Your task to perform on an android device: turn on sleep mode Image 0: 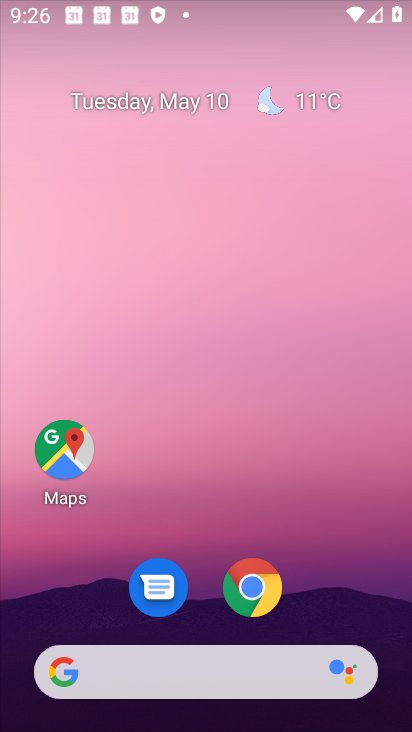
Step 0: drag from (354, 574) to (311, 148)
Your task to perform on an android device: turn on sleep mode Image 1: 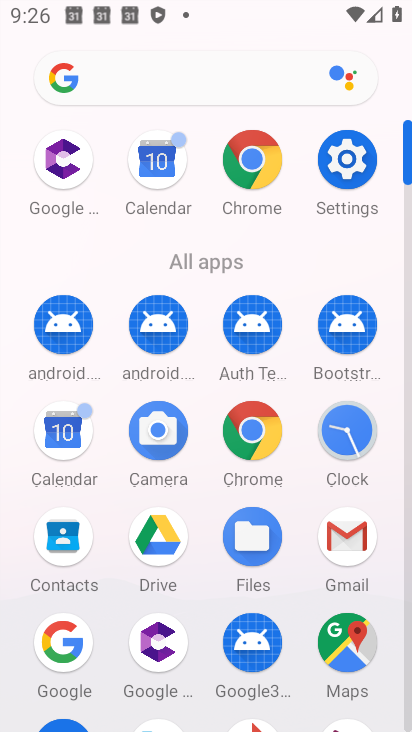
Step 1: click (328, 162)
Your task to perform on an android device: turn on sleep mode Image 2: 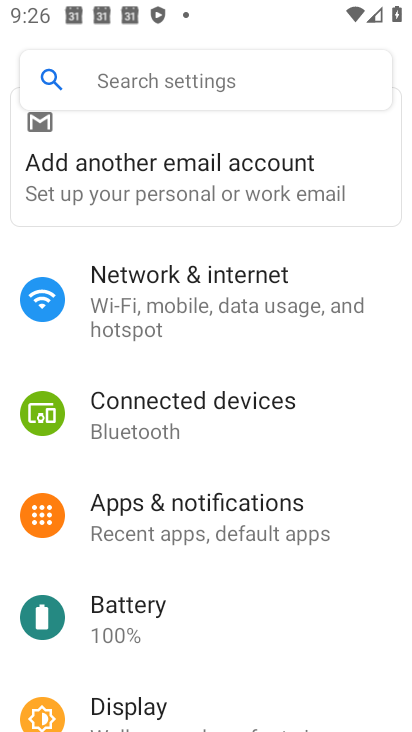
Step 2: click (199, 86)
Your task to perform on an android device: turn on sleep mode Image 3: 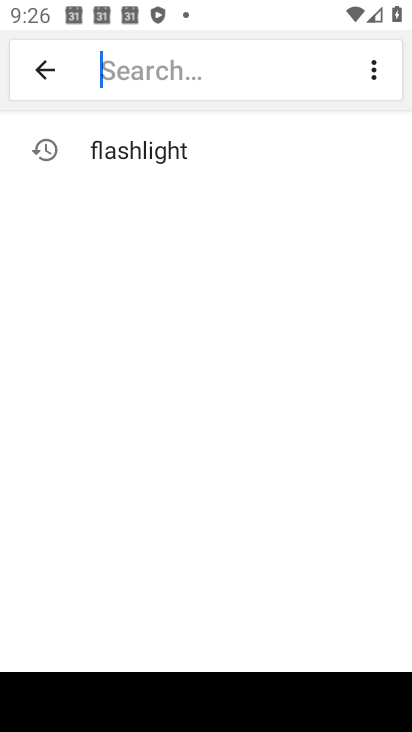
Step 3: type "sleep mode"
Your task to perform on an android device: turn on sleep mode Image 4: 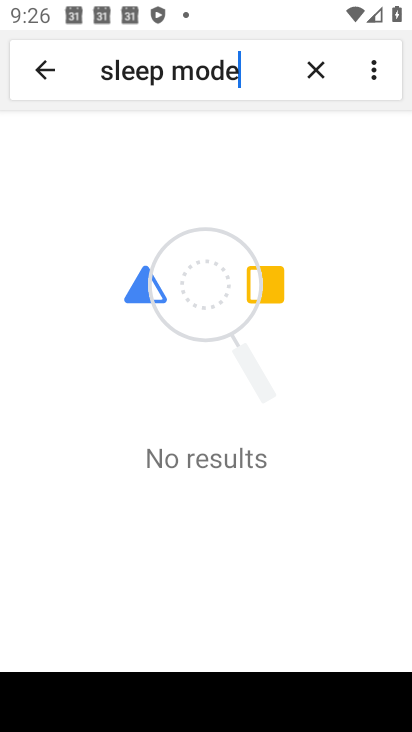
Step 4: task complete